Your task to perform on an android device: Go to settings Image 0: 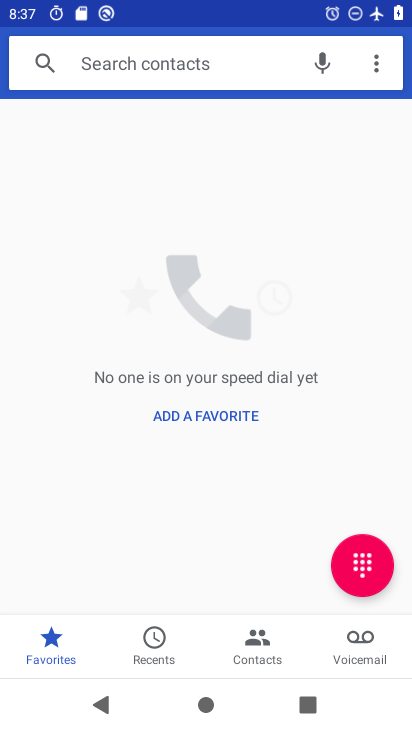
Step 0: press home button
Your task to perform on an android device: Go to settings Image 1: 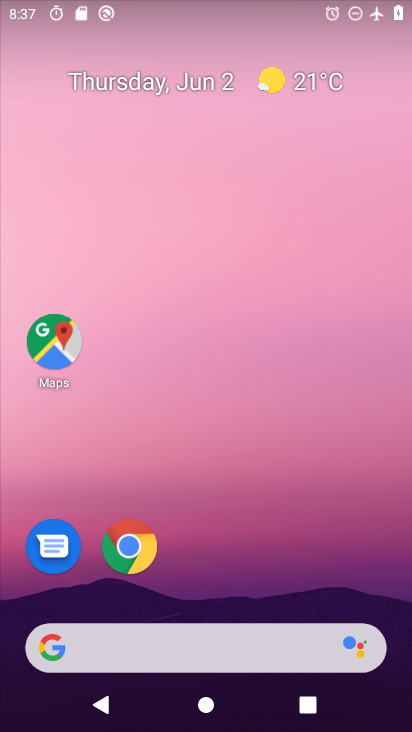
Step 1: drag from (345, 555) to (348, 124)
Your task to perform on an android device: Go to settings Image 2: 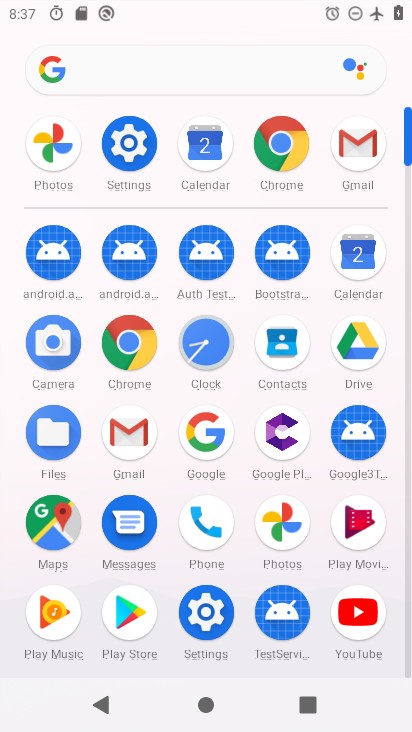
Step 2: click (137, 166)
Your task to perform on an android device: Go to settings Image 3: 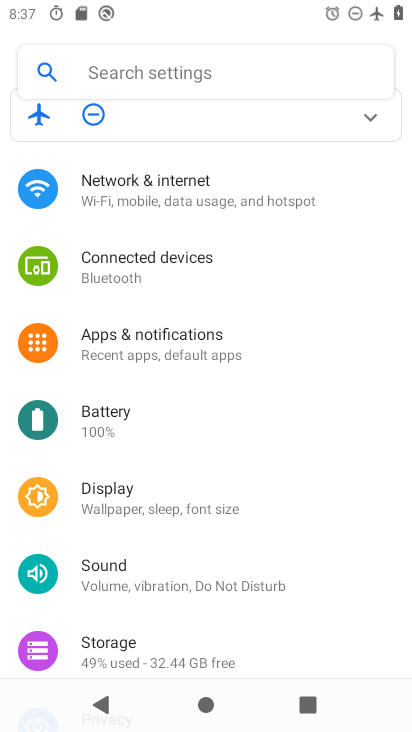
Step 3: task complete